Your task to perform on an android device: Open calendar and show me the fourth week of next month Image 0: 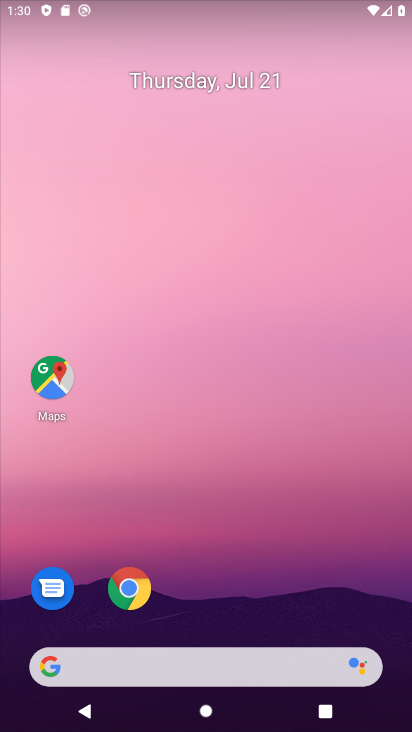
Step 0: drag from (208, 635) to (236, 0)
Your task to perform on an android device: Open calendar and show me the fourth week of next month Image 1: 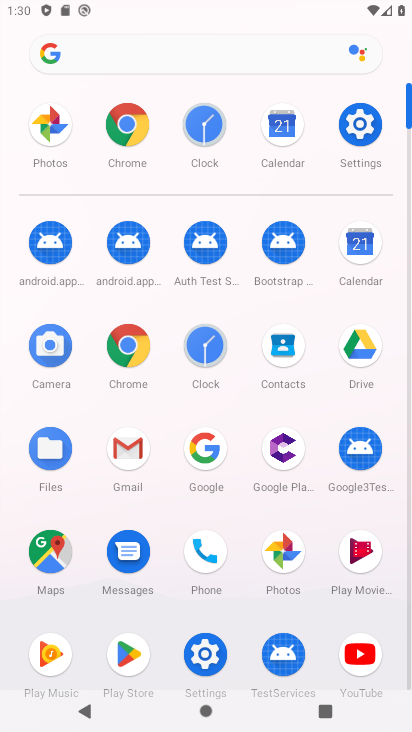
Step 1: click (362, 256)
Your task to perform on an android device: Open calendar and show me the fourth week of next month Image 2: 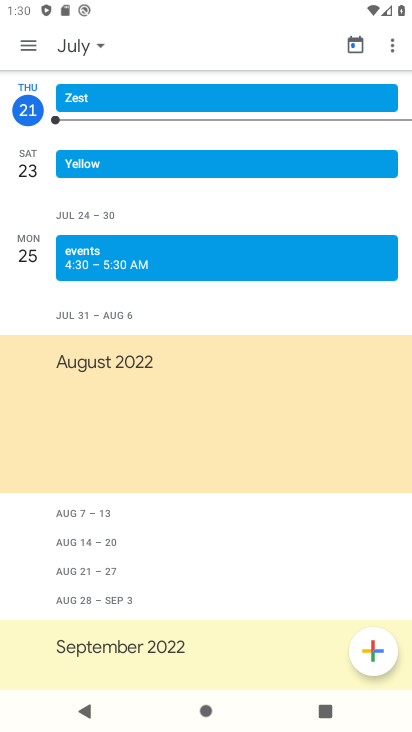
Step 2: click (29, 50)
Your task to perform on an android device: Open calendar and show me the fourth week of next month Image 3: 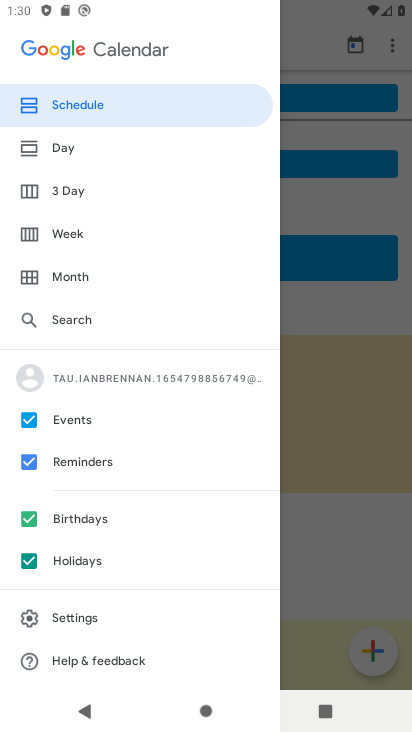
Step 3: click (85, 243)
Your task to perform on an android device: Open calendar and show me the fourth week of next month Image 4: 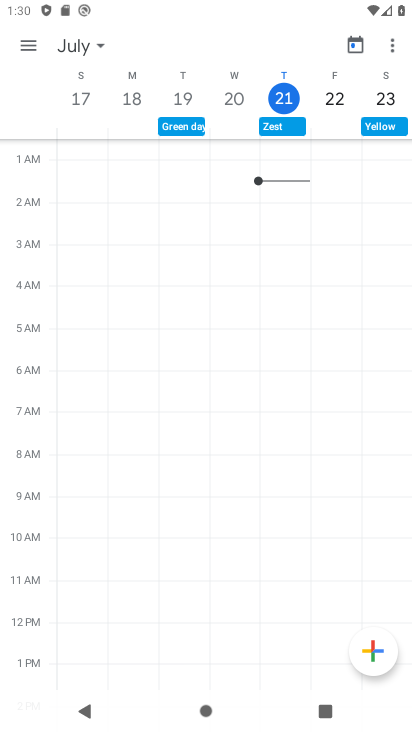
Step 4: task complete